Your task to perform on an android device: clear history in the chrome app Image 0: 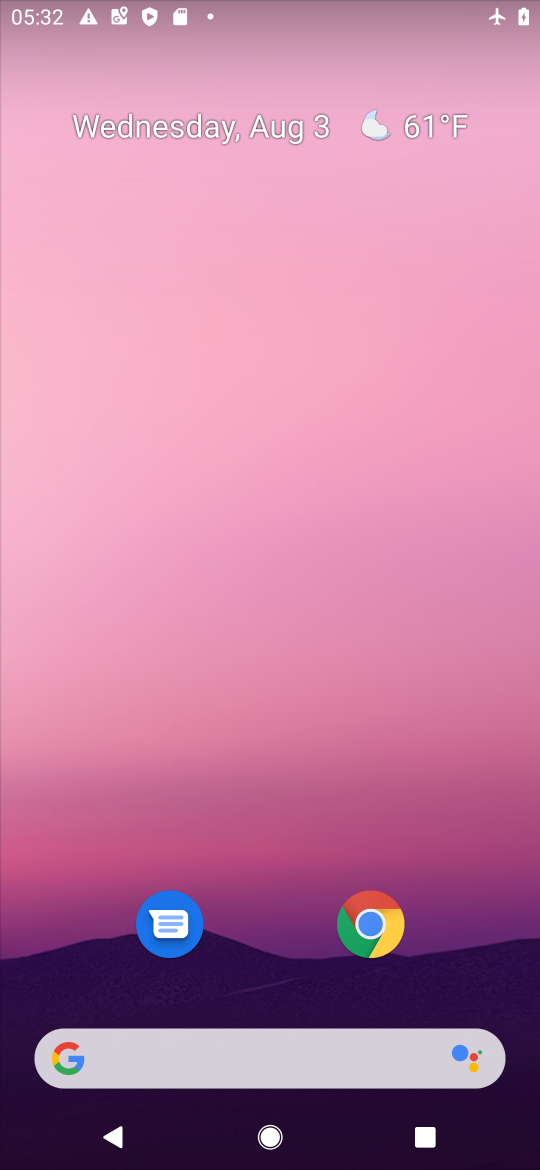
Step 0: click (381, 910)
Your task to perform on an android device: clear history in the chrome app Image 1: 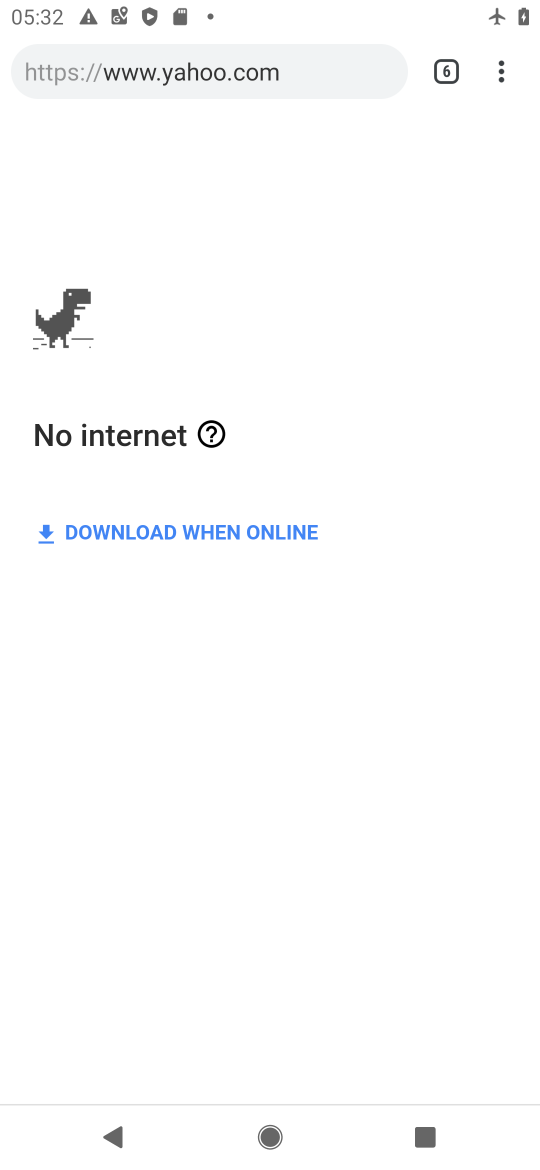
Step 1: click (516, 72)
Your task to perform on an android device: clear history in the chrome app Image 2: 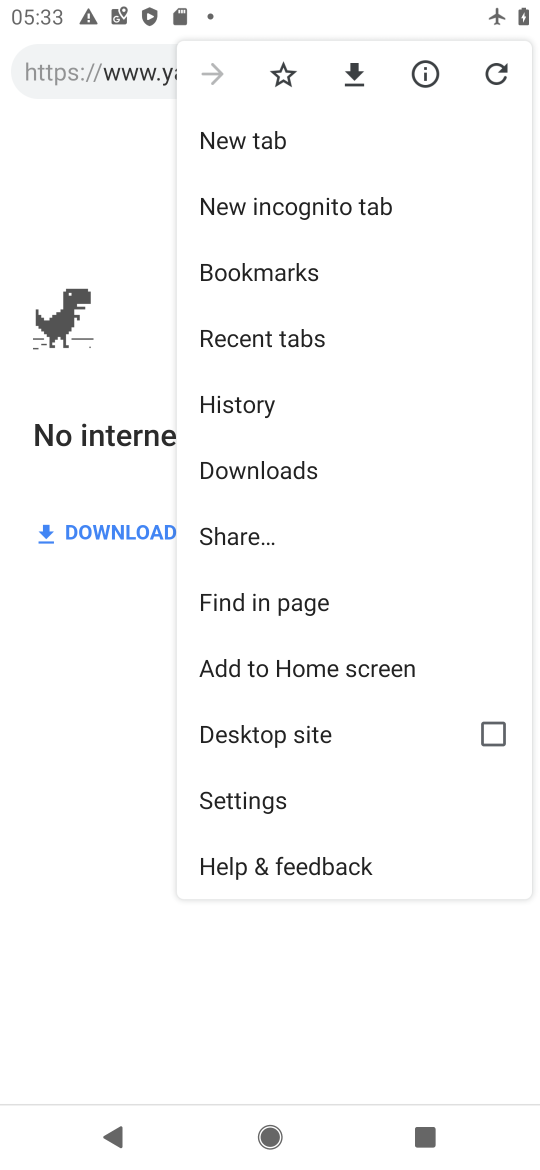
Step 2: click (228, 415)
Your task to perform on an android device: clear history in the chrome app Image 3: 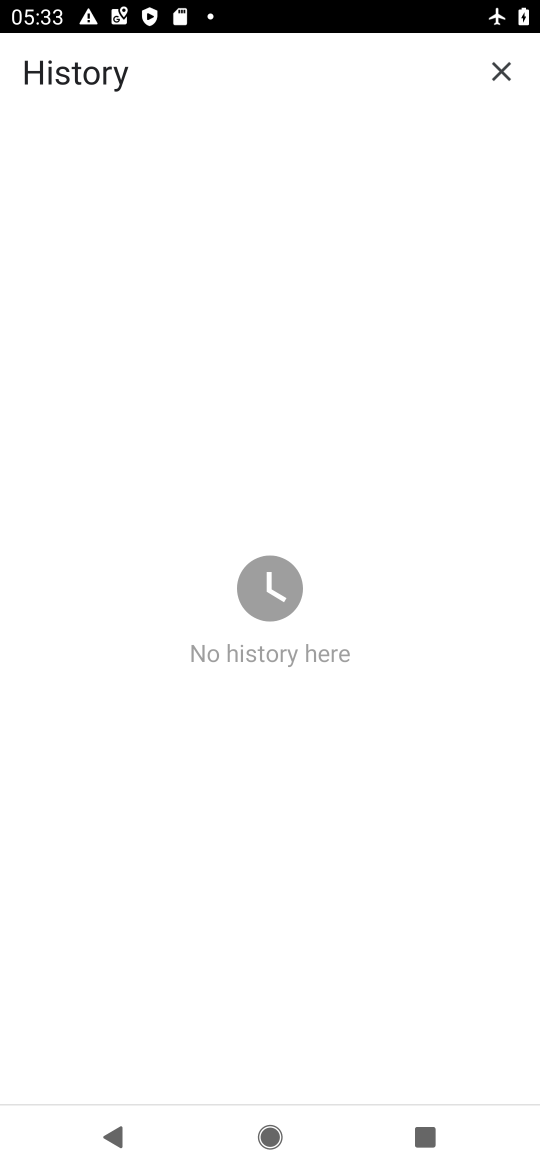
Step 3: task complete